Your task to perform on an android device: Go to Wikipedia Image 0: 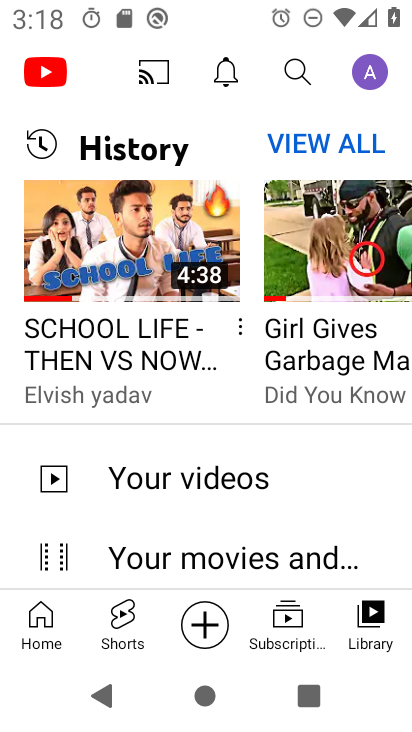
Step 0: press home button
Your task to perform on an android device: Go to Wikipedia Image 1: 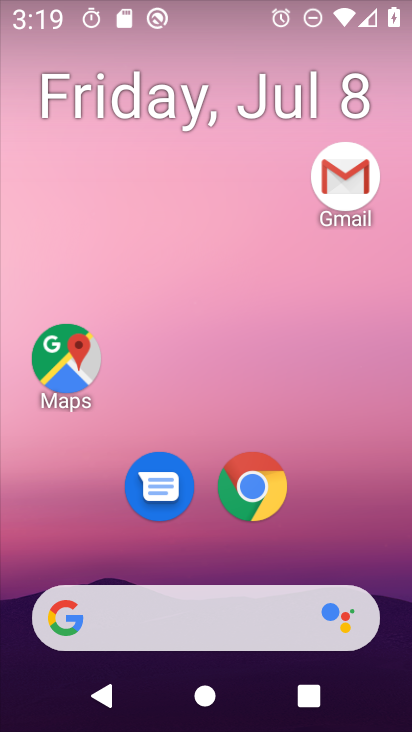
Step 1: drag from (350, 524) to (334, 92)
Your task to perform on an android device: Go to Wikipedia Image 2: 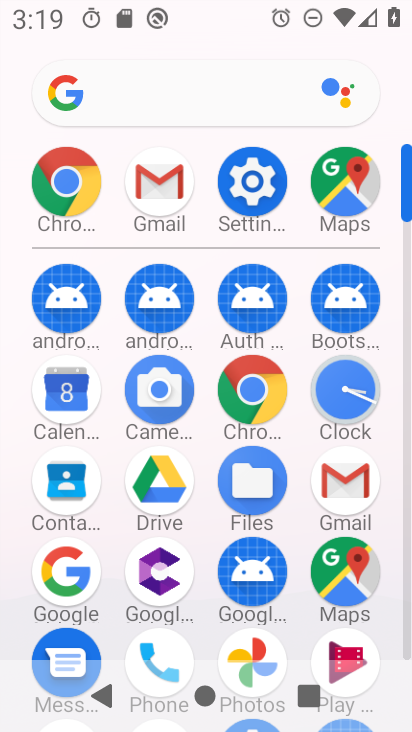
Step 2: click (258, 385)
Your task to perform on an android device: Go to Wikipedia Image 3: 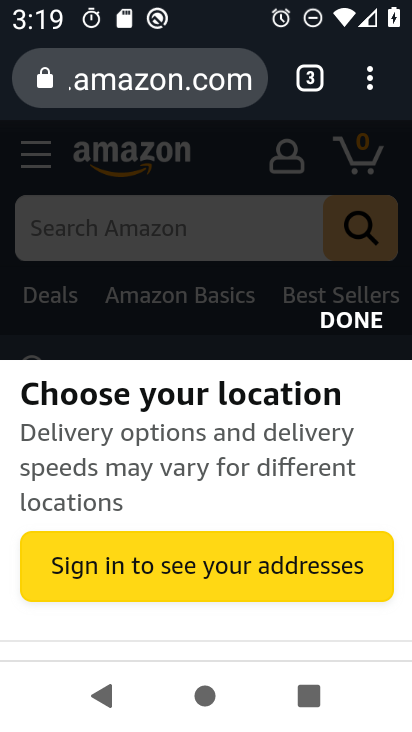
Step 3: click (188, 87)
Your task to perform on an android device: Go to Wikipedia Image 4: 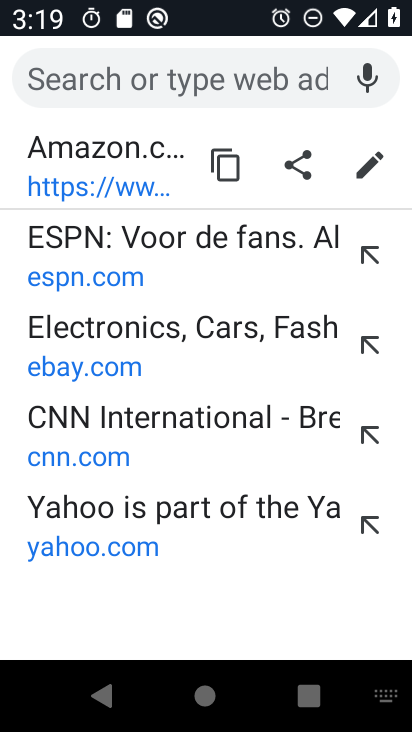
Step 4: type "wikipedia"
Your task to perform on an android device: Go to Wikipedia Image 5: 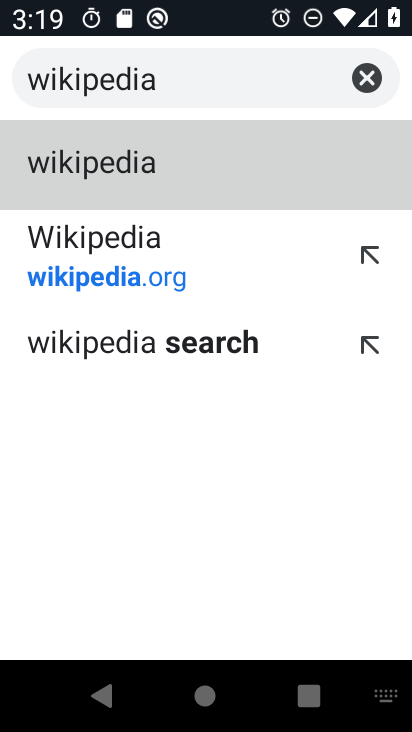
Step 5: click (229, 165)
Your task to perform on an android device: Go to Wikipedia Image 6: 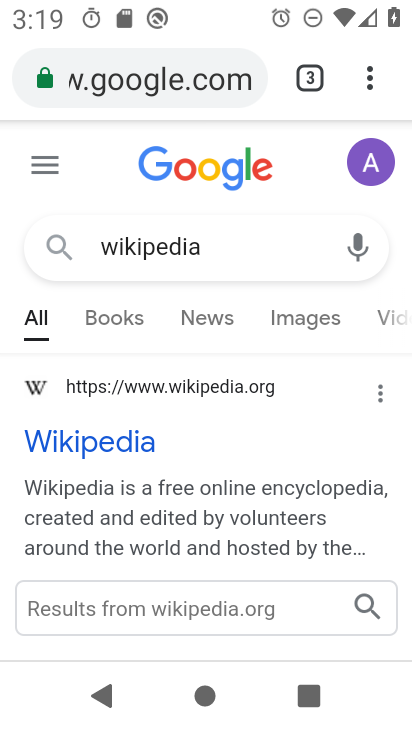
Step 6: task complete